Your task to perform on an android device: Open Maps and search for coffee Image 0: 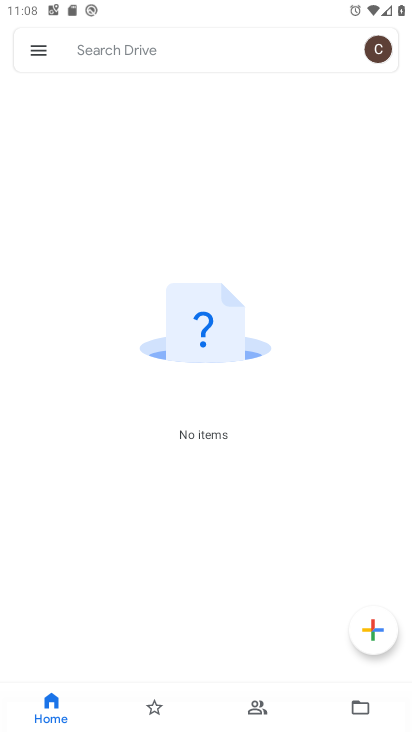
Step 0: drag from (215, 569) to (360, 121)
Your task to perform on an android device: Open Maps and search for coffee Image 1: 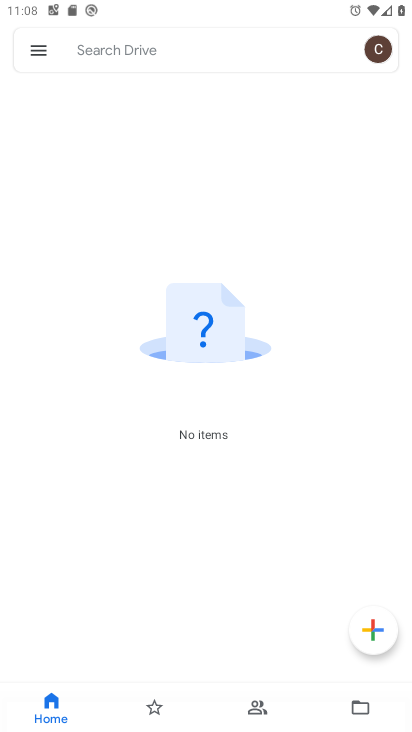
Step 1: press home button
Your task to perform on an android device: Open Maps and search for coffee Image 2: 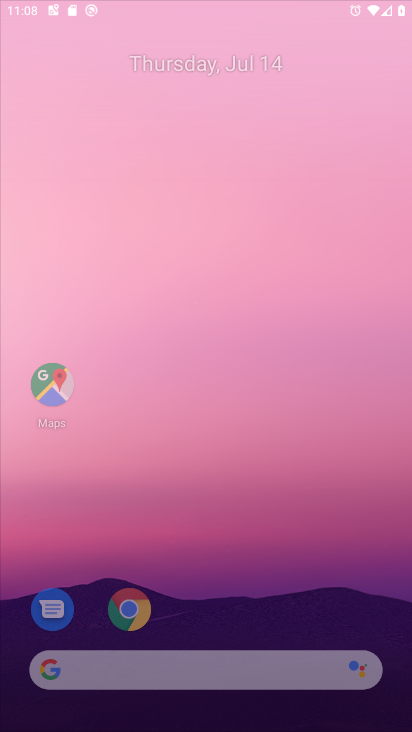
Step 2: drag from (150, 578) to (195, 225)
Your task to perform on an android device: Open Maps and search for coffee Image 3: 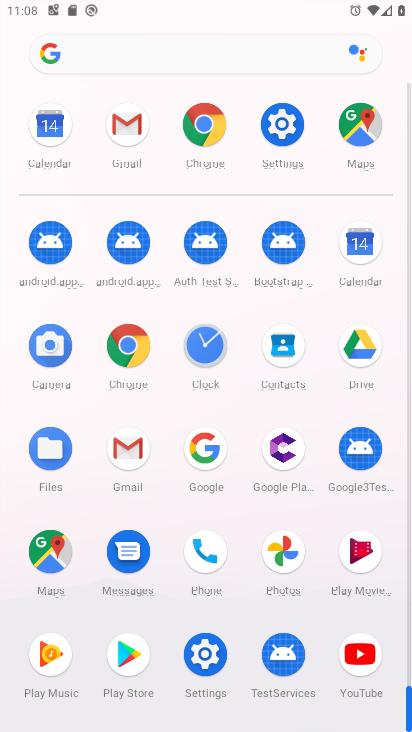
Step 3: click (68, 544)
Your task to perform on an android device: Open Maps and search for coffee Image 4: 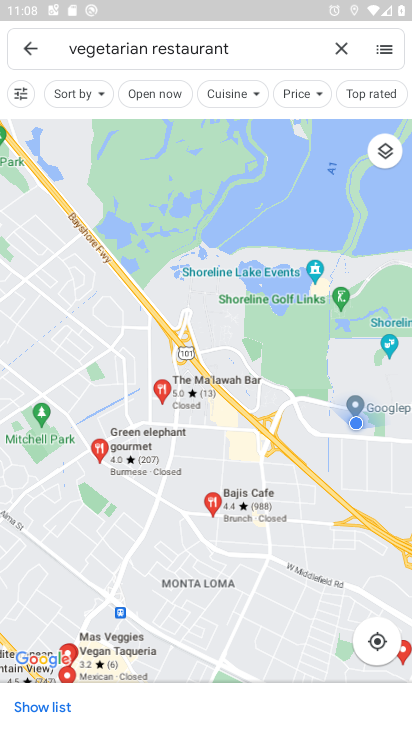
Step 4: click (338, 47)
Your task to perform on an android device: Open Maps and search for coffee Image 5: 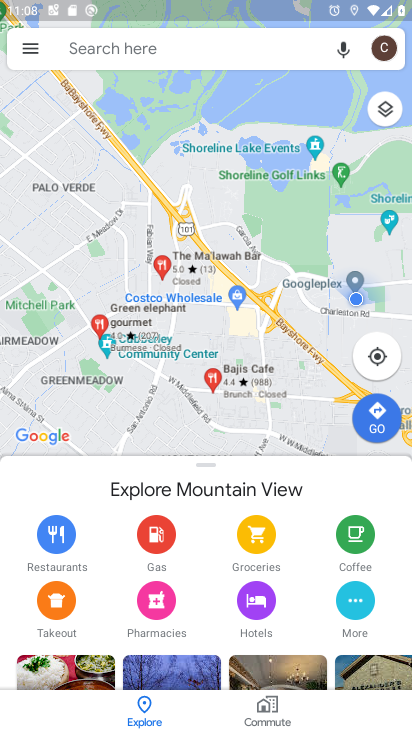
Step 5: click (102, 55)
Your task to perform on an android device: Open Maps and search for coffee Image 6: 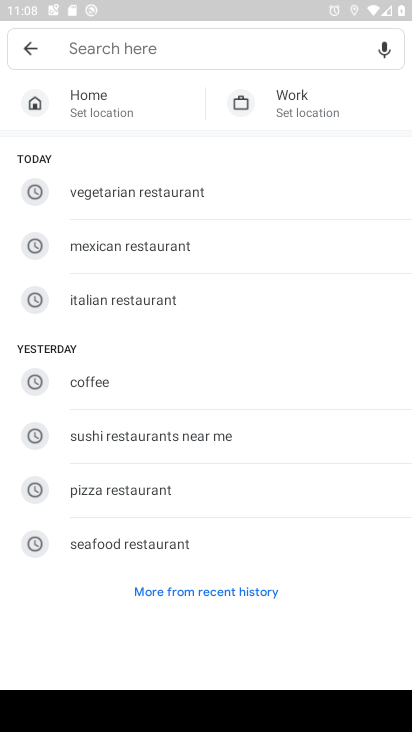
Step 6: click (76, 398)
Your task to perform on an android device: Open Maps and search for coffee Image 7: 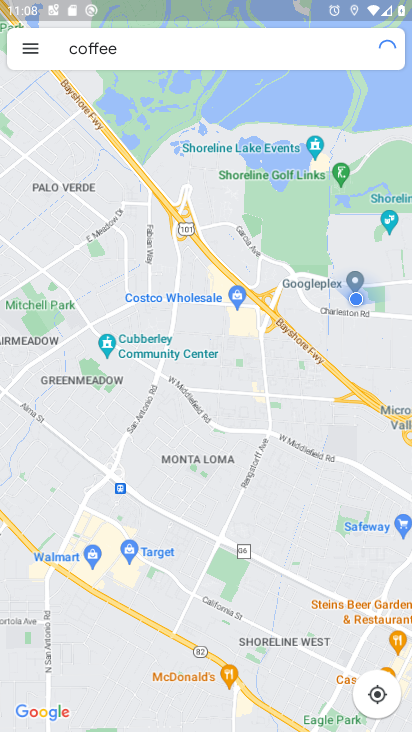
Step 7: task complete